Your task to perform on an android device: toggle pop-ups in chrome Image 0: 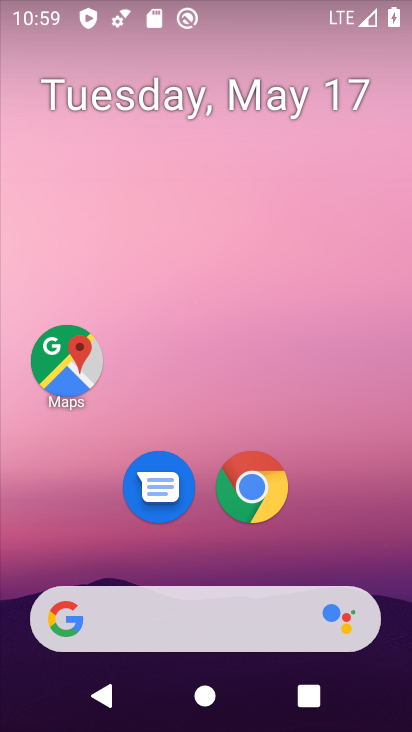
Step 0: press home button
Your task to perform on an android device: toggle pop-ups in chrome Image 1: 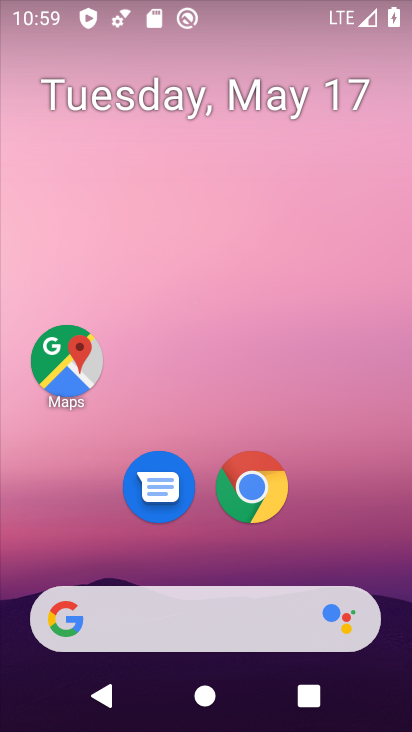
Step 1: click (243, 495)
Your task to perform on an android device: toggle pop-ups in chrome Image 2: 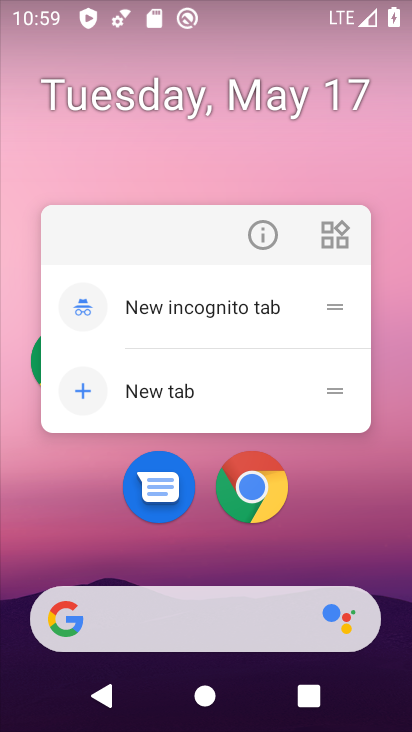
Step 2: click (258, 469)
Your task to perform on an android device: toggle pop-ups in chrome Image 3: 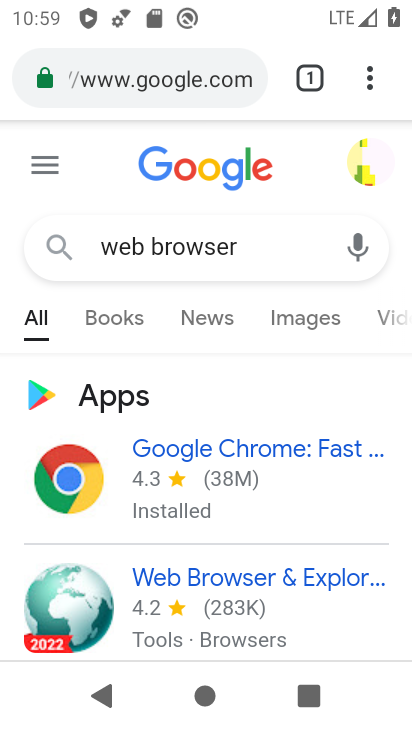
Step 3: drag from (380, 67) to (0, 522)
Your task to perform on an android device: toggle pop-ups in chrome Image 4: 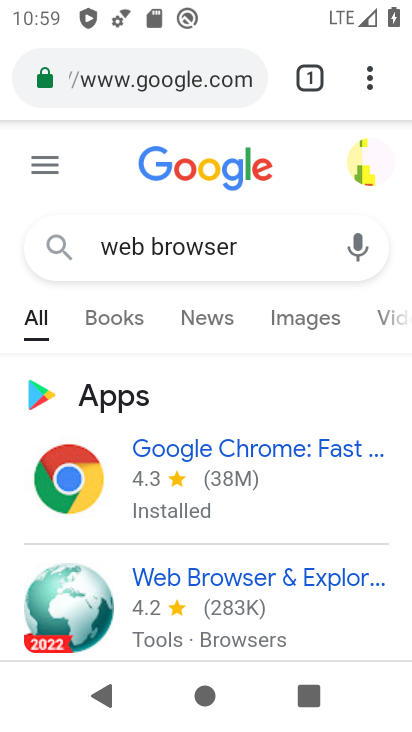
Step 4: drag from (84, 512) to (122, 443)
Your task to perform on an android device: toggle pop-ups in chrome Image 5: 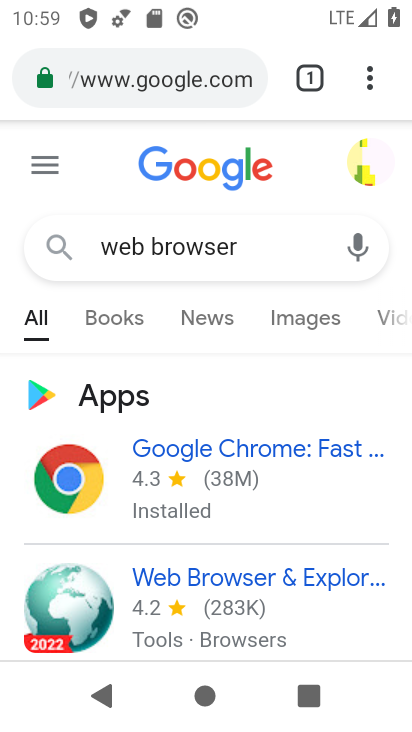
Step 5: drag from (368, 89) to (129, 546)
Your task to perform on an android device: toggle pop-ups in chrome Image 6: 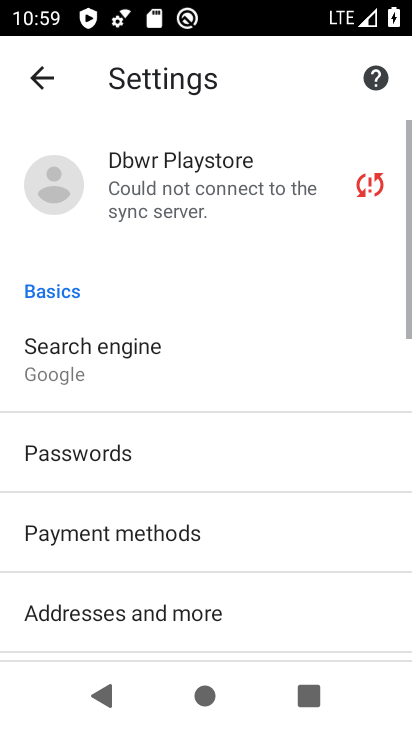
Step 6: drag from (127, 540) to (252, 145)
Your task to perform on an android device: toggle pop-ups in chrome Image 7: 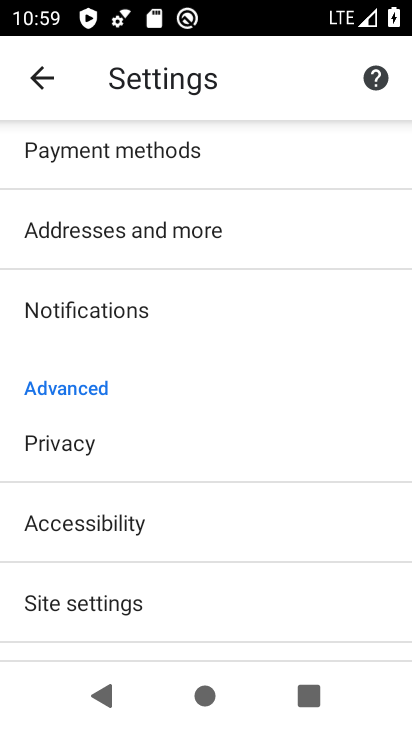
Step 7: click (168, 598)
Your task to perform on an android device: toggle pop-ups in chrome Image 8: 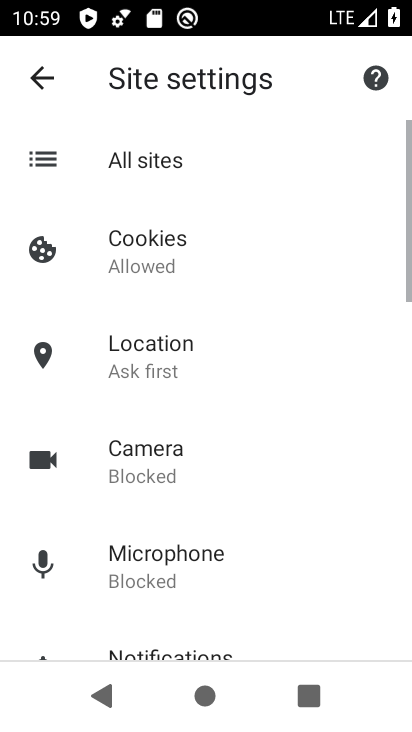
Step 8: drag from (168, 598) to (285, 235)
Your task to perform on an android device: toggle pop-ups in chrome Image 9: 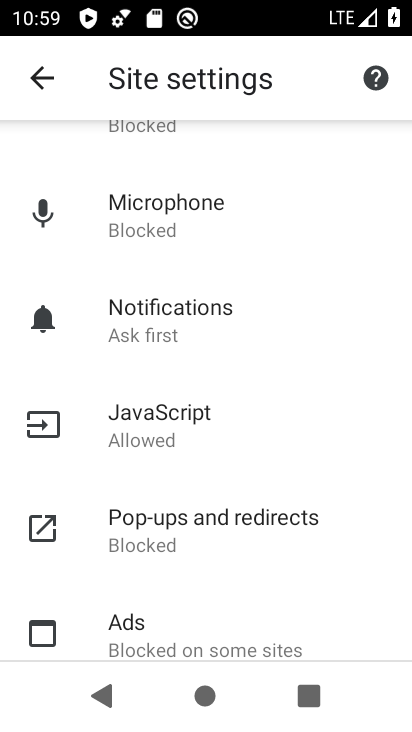
Step 9: click (215, 516)
Your task to perform on an android device: toggle pop-ups in chrome Image 10: 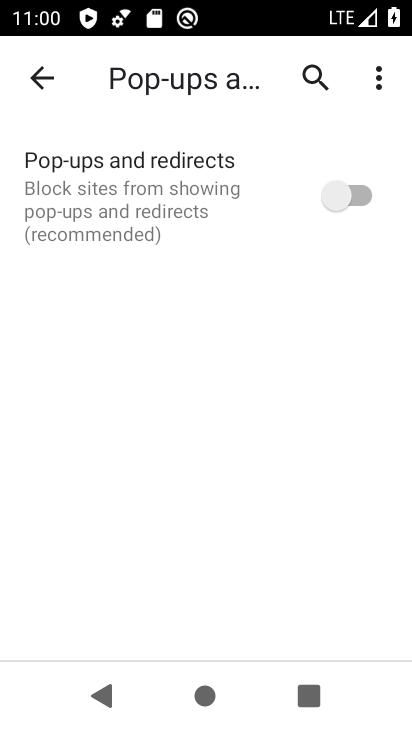
Step 10: click (371, 203)
Your task to perform on an android device: toggle pop-ups in chrome Image 11: 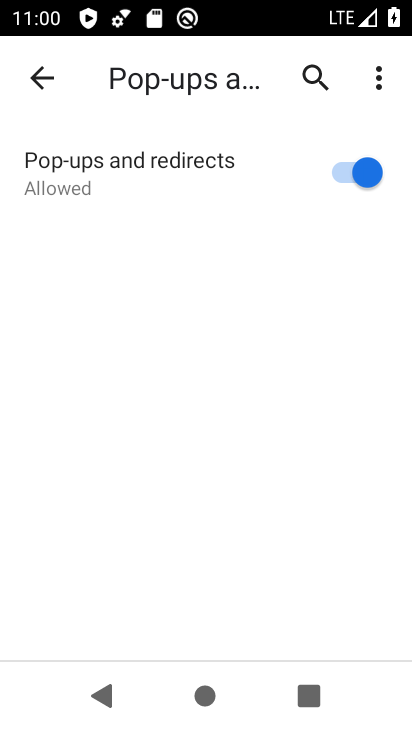
Step 11: task complete